Your task to perform on an android device: Open display settings Image 0: 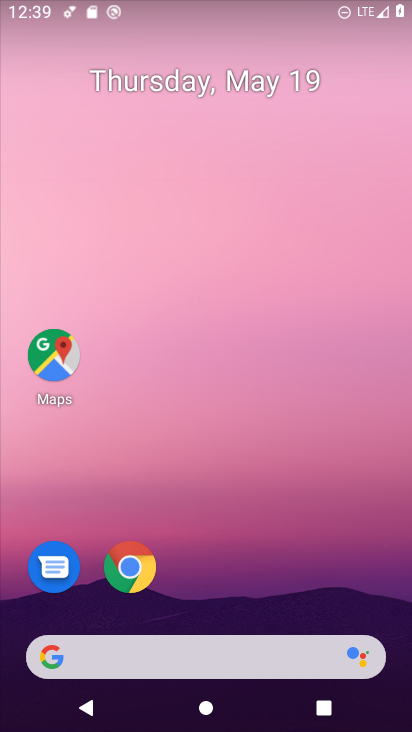
Step 0: drag from (253, 542) to (210, 92)
Your task to perform on an android device: Open display settings Image 1: 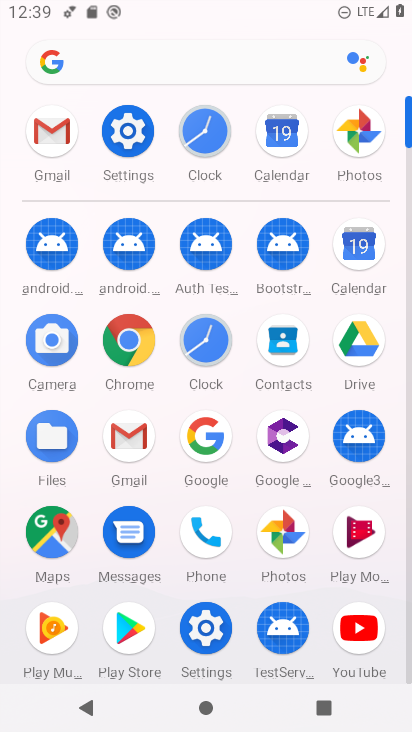
Step 1: click (132, 136)
Your task to perform on an android device: Open display settings Image 2: 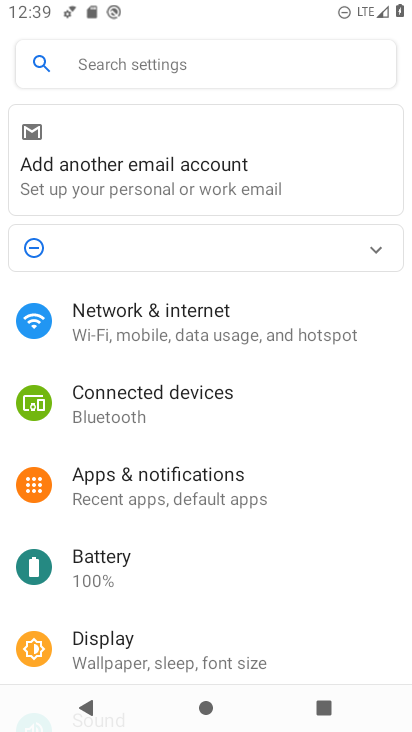
Step 2: drag from (169, 590) to (206, 296)
Your task to perform on an android device: Open display settings Image 3: 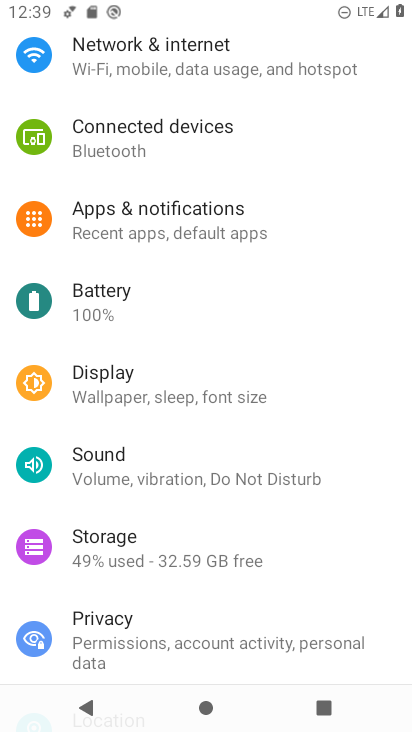
Step 3: click (200, 376)
Your task to perform on an android device: Open display settings Image 4: 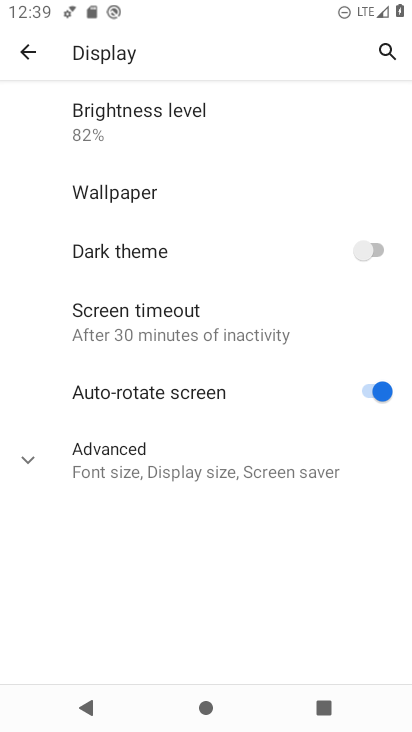
Step 4: task complete